Your task to perform on an android device: Open the calendar app, open the side menu, and click the "Day" option Image 0: 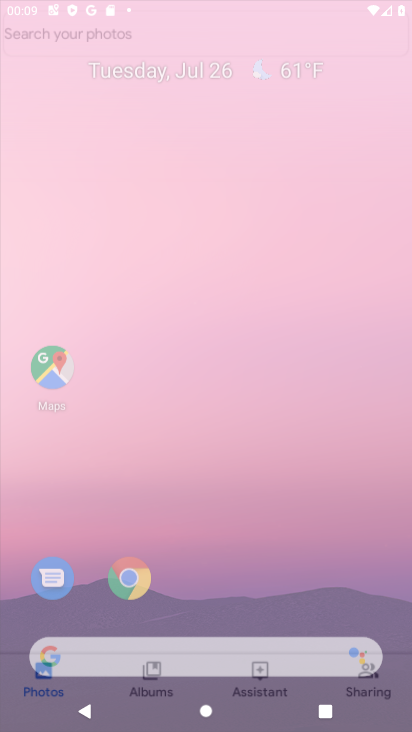
Step 0: press home button
Your task to perform on an android device: Open the calendar app, open the side menu, and click the "Day" option Image 1: 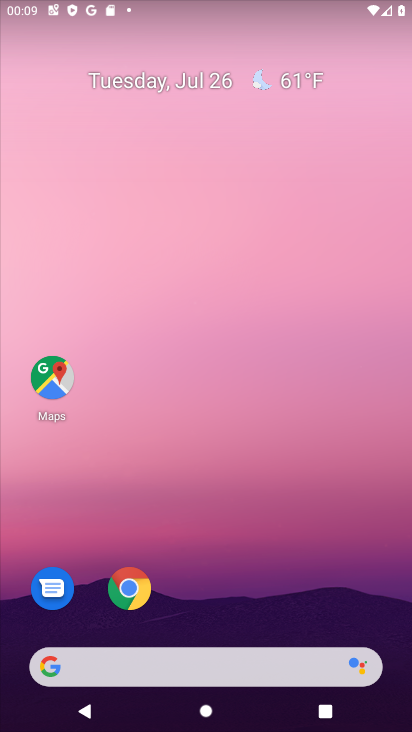
Step 1: drag from (208, 632) to (206, 57)
Your task to perform on an android device: Open the calendar app, open the side menu, and click the "Day" option Image 2: 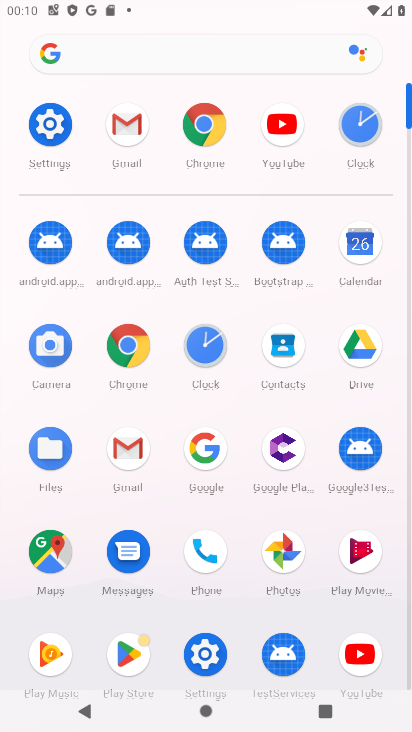
Step 2: click (363, 238)
Your task to perform on an android device: Open the calendar app, open the side menu, and click the "Day" option Image 3: 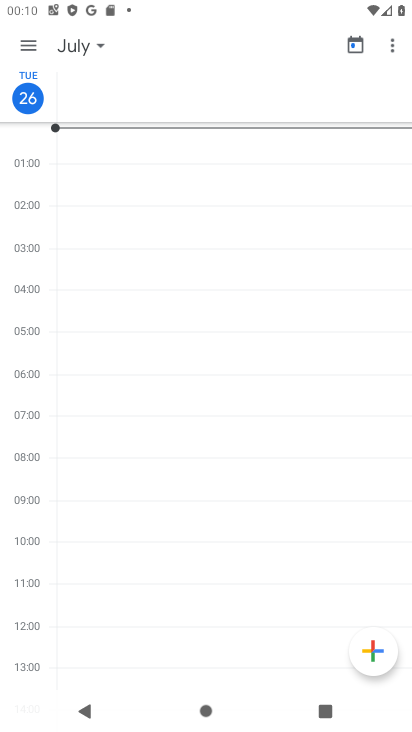
Step 3: click (33, 41)
Your task to perform on an android device: Open the calendar app, open the side menu, and click the "Day" option Image 4: 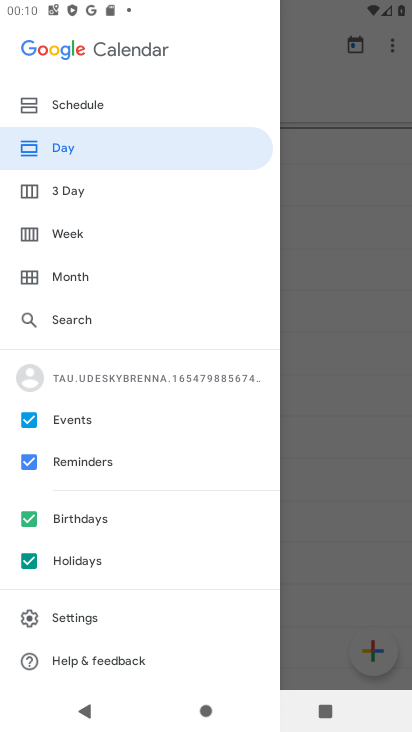
Step 4: click (53, 151)
Your task to perform on an android device: Open the calendar app, open the side menu, and click the "Day" option Image 5: 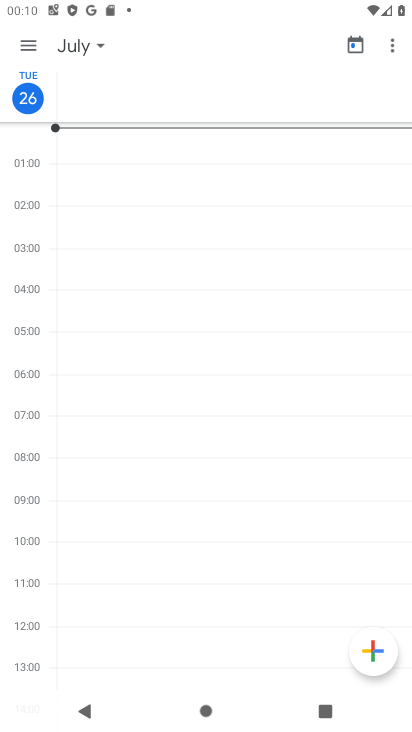
Step 5: task complete